Your task to perform on an android device: Go to Yahoo.com Image 0: 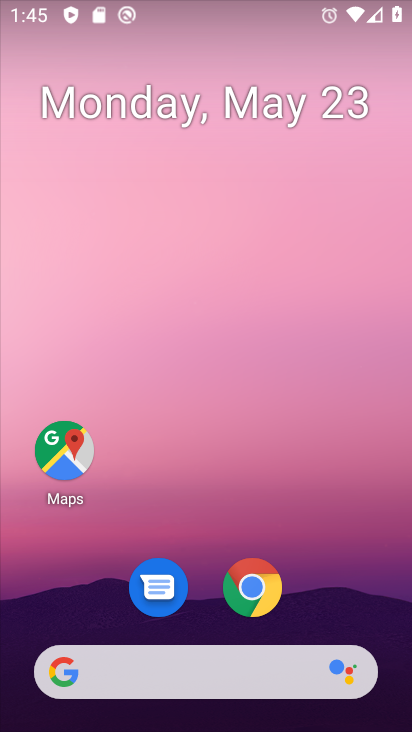
Step 0: drag from (394, 588) to (335, 159)
Your task to perform on an android device: Go to Yahoo.com Image 1: 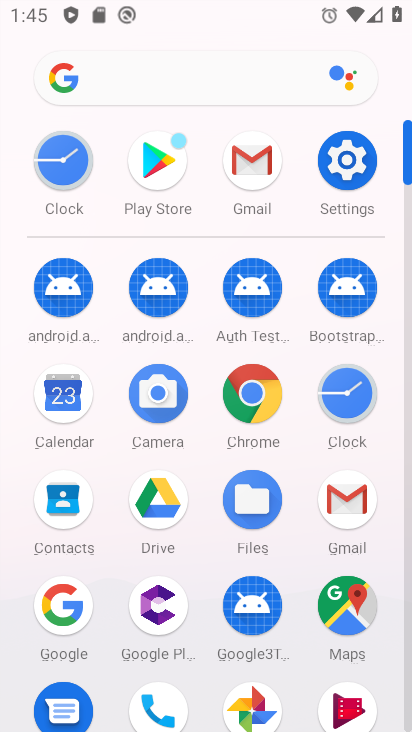
Step 1: click (245, 412)
Your task to perform on an android device: Go to Yahoo.com Image 2: 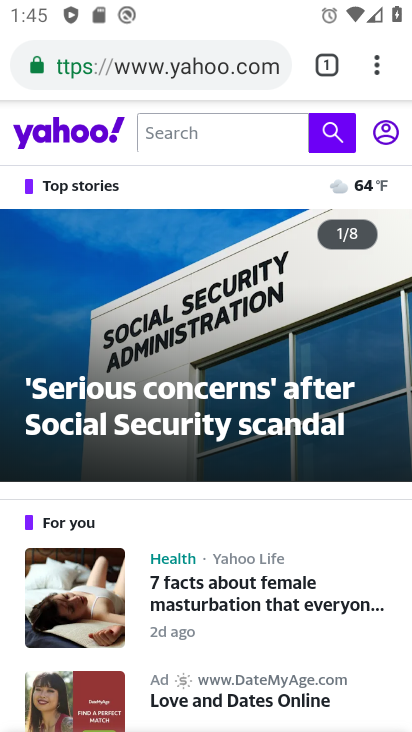
Step 2: task complete